Your task to perform on an android device: uninstall "NewsBreak: Local News & Alerts" Image 0: 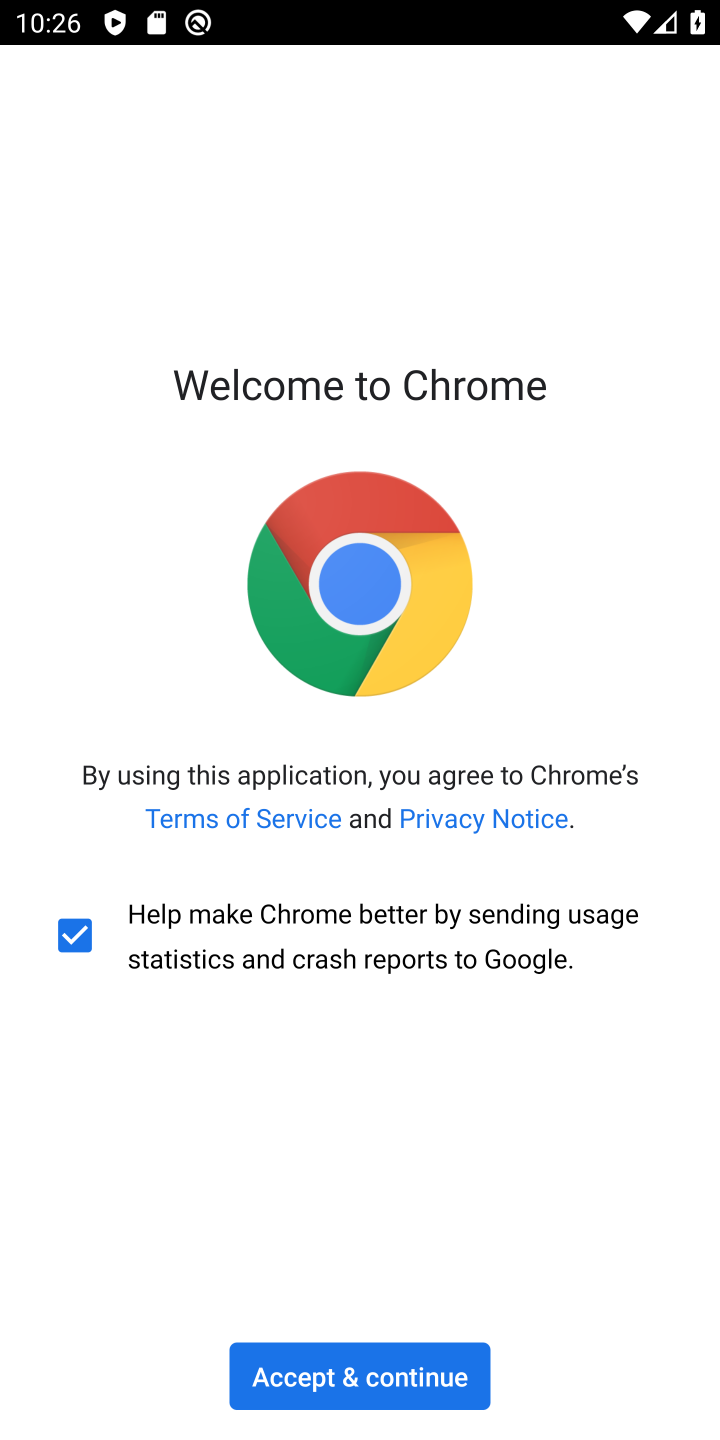
Step 0: press home button
Your task to perform on an android device: uninstall "NewsBreak: Local News & Alerts" Image 1: 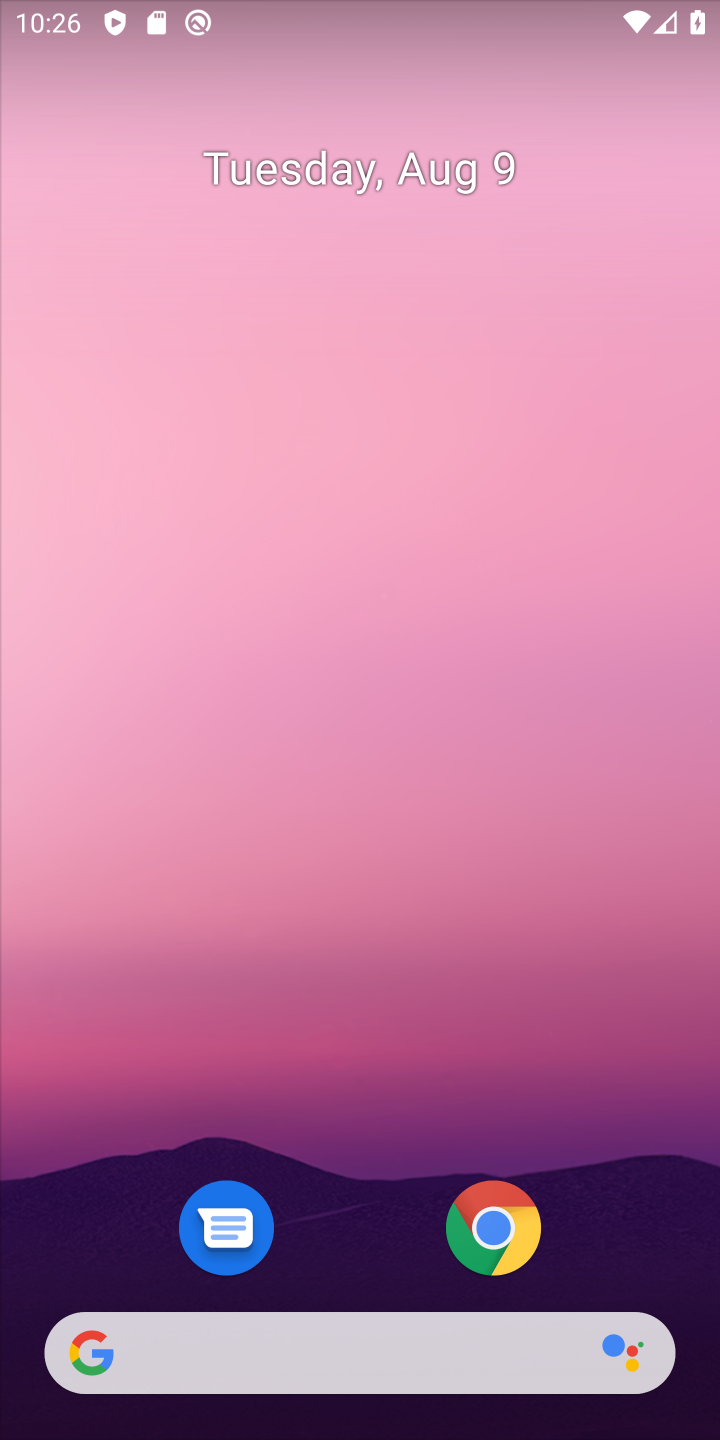
Step 1: drag from (385, 618) to (367, 203)
Your task to perform on an android device: uninstall "NewsBreak: Local News & Alerts" Image 2: 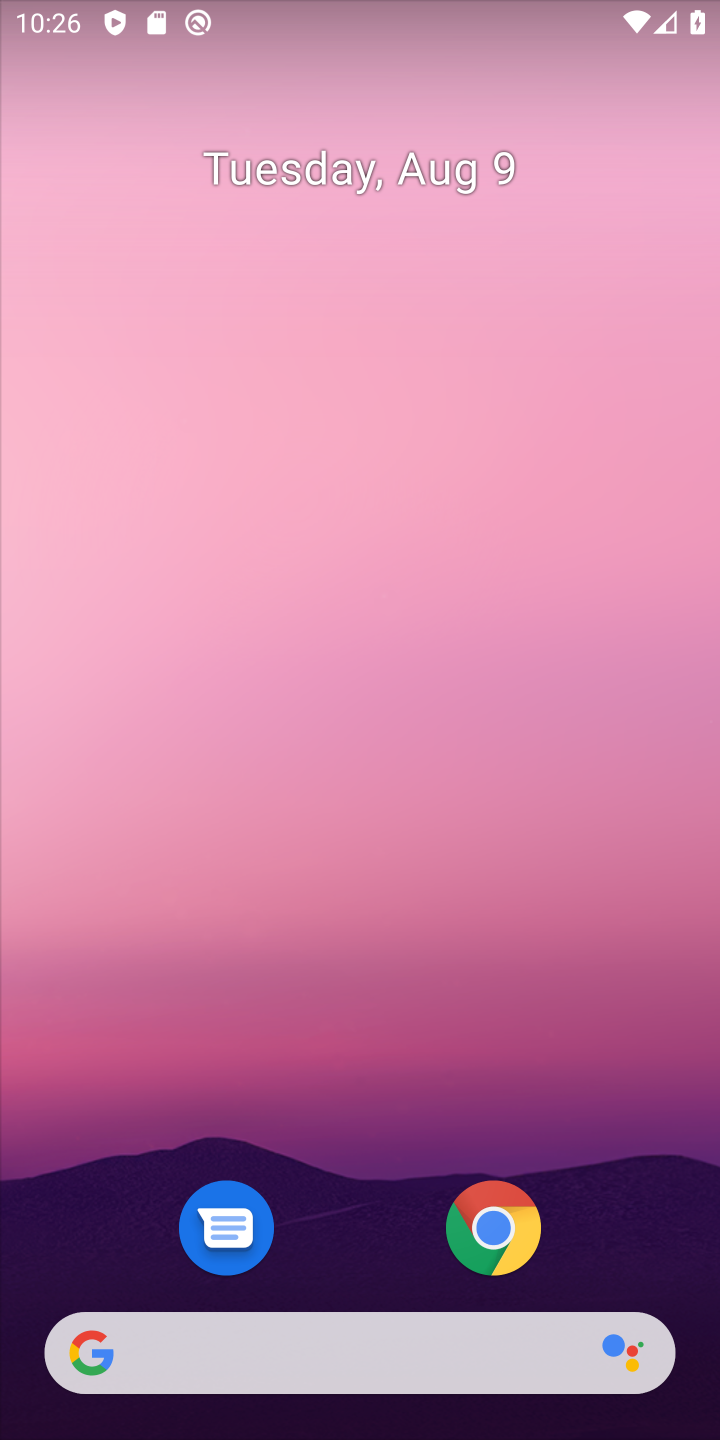
Step 2: drag from (286, 1019) to (236, 157)
Your task to perform on an android device: uninstall "NewsBreak: Local News & Alerts" Image 3: 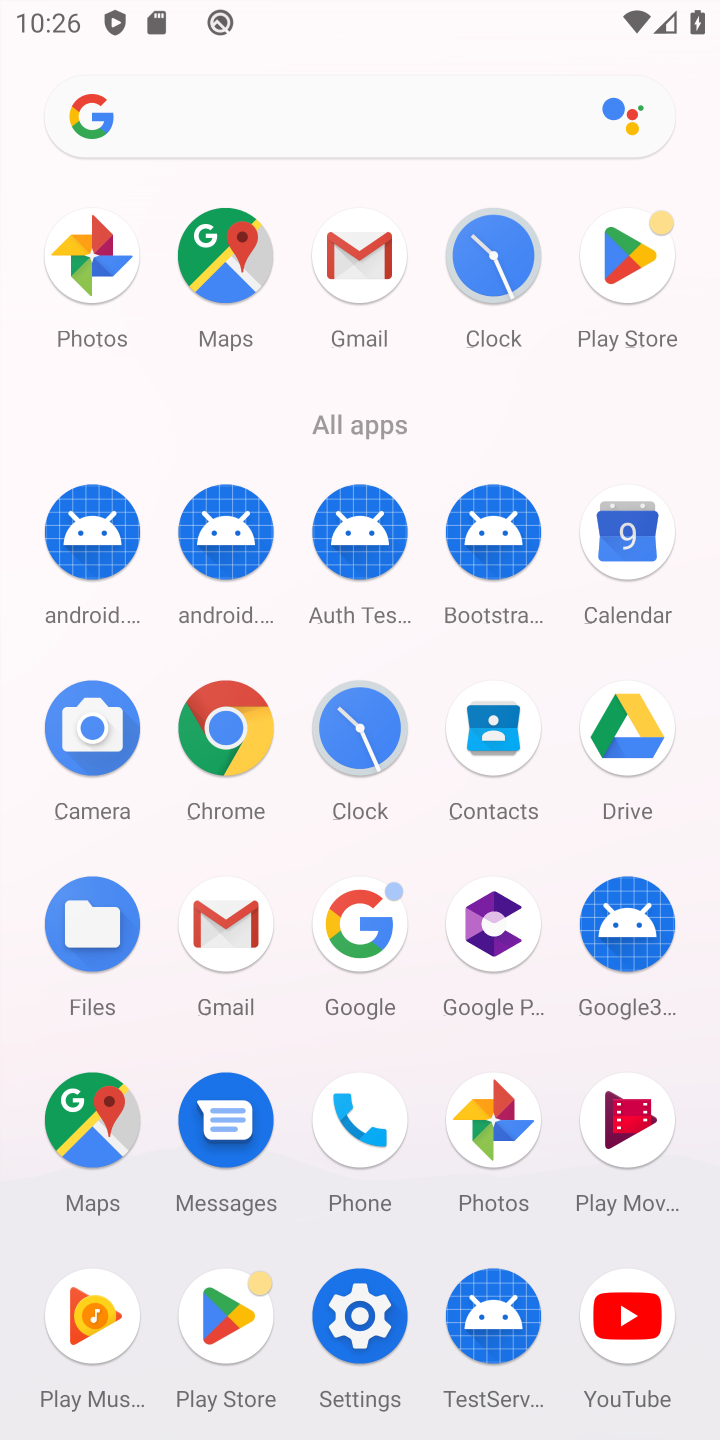
Step 3: click (627, 257)
Your task to perform on an android device: uninstall "NewsBreak: Local News & Alerts" Image 4: 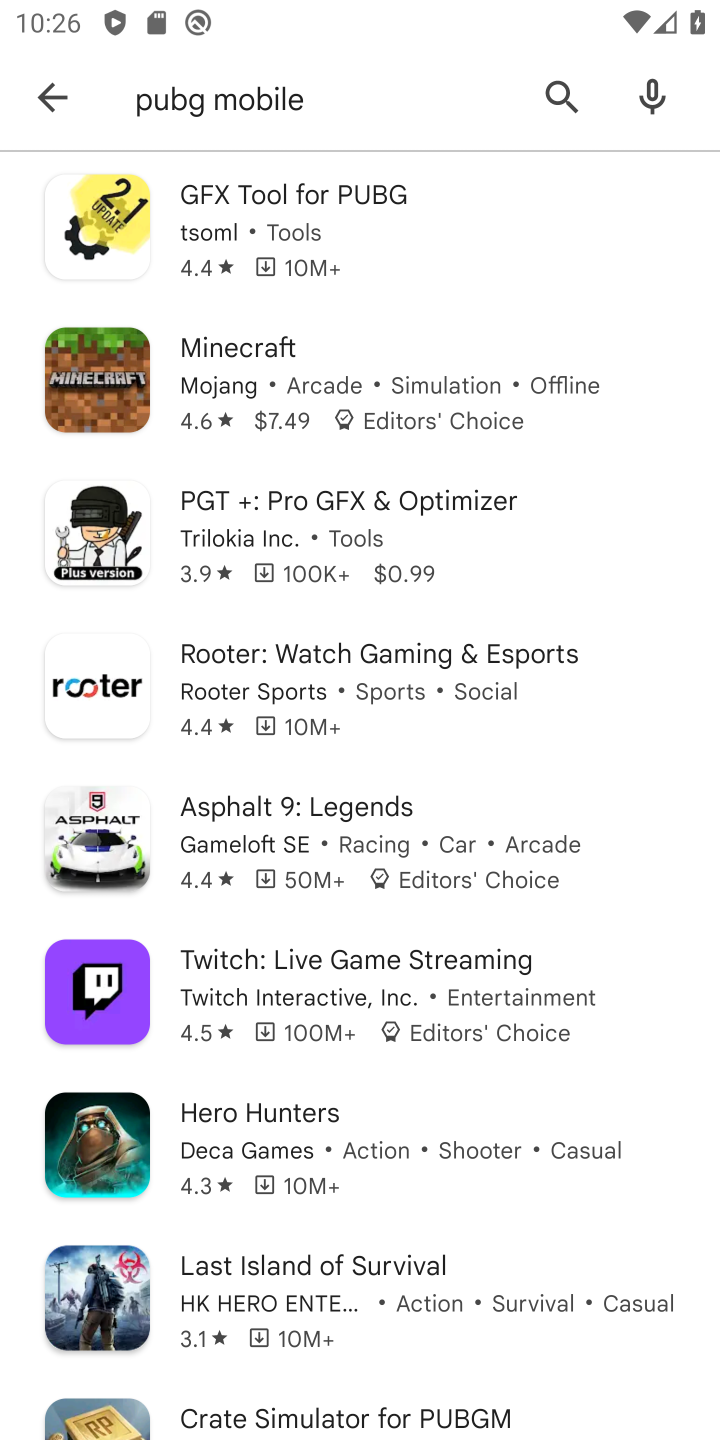
Step 4: click (554, 100)
Your task to perform on an android device: uninstall "NewsBreak: Local News & Alerts" Image 5: 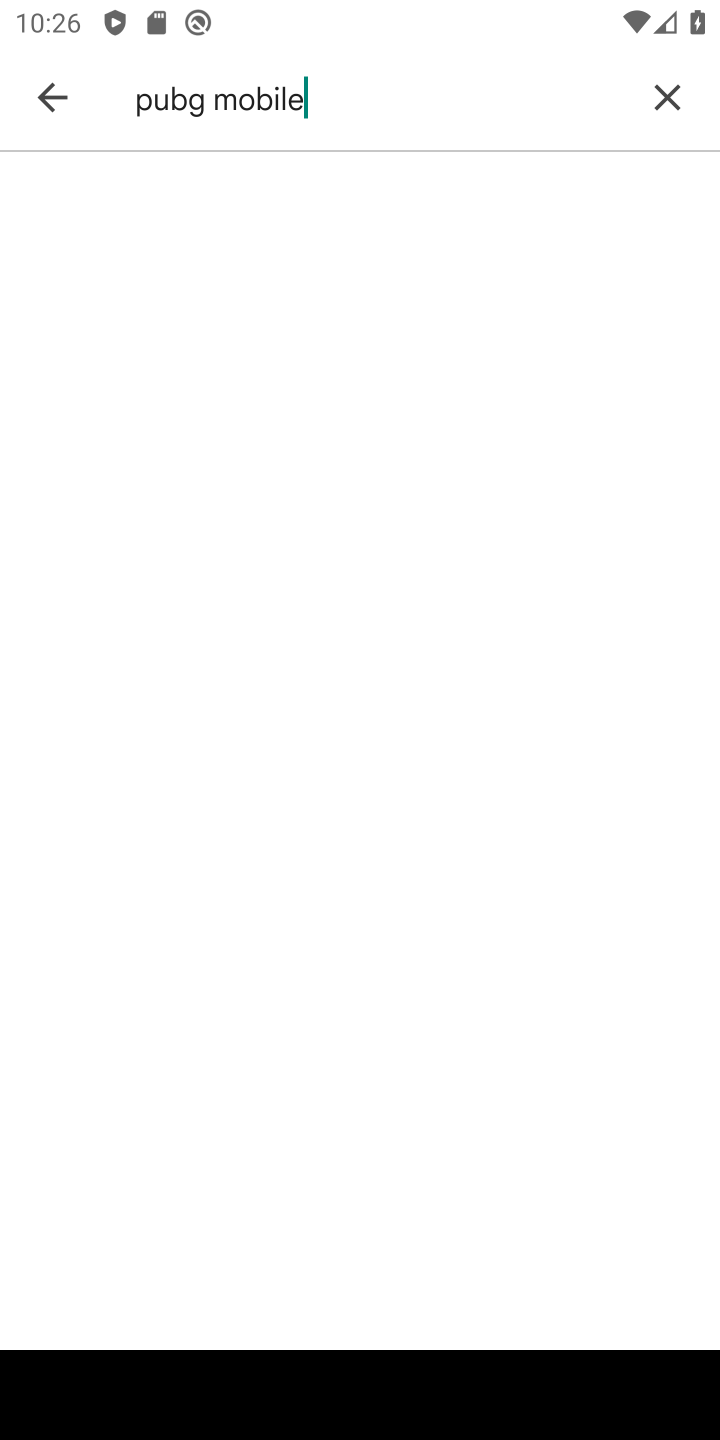
Step 5: click (670, 95)
Your task to perform on an android device: uninstall "NewsBreak: Local News & Alerts" Image 6: 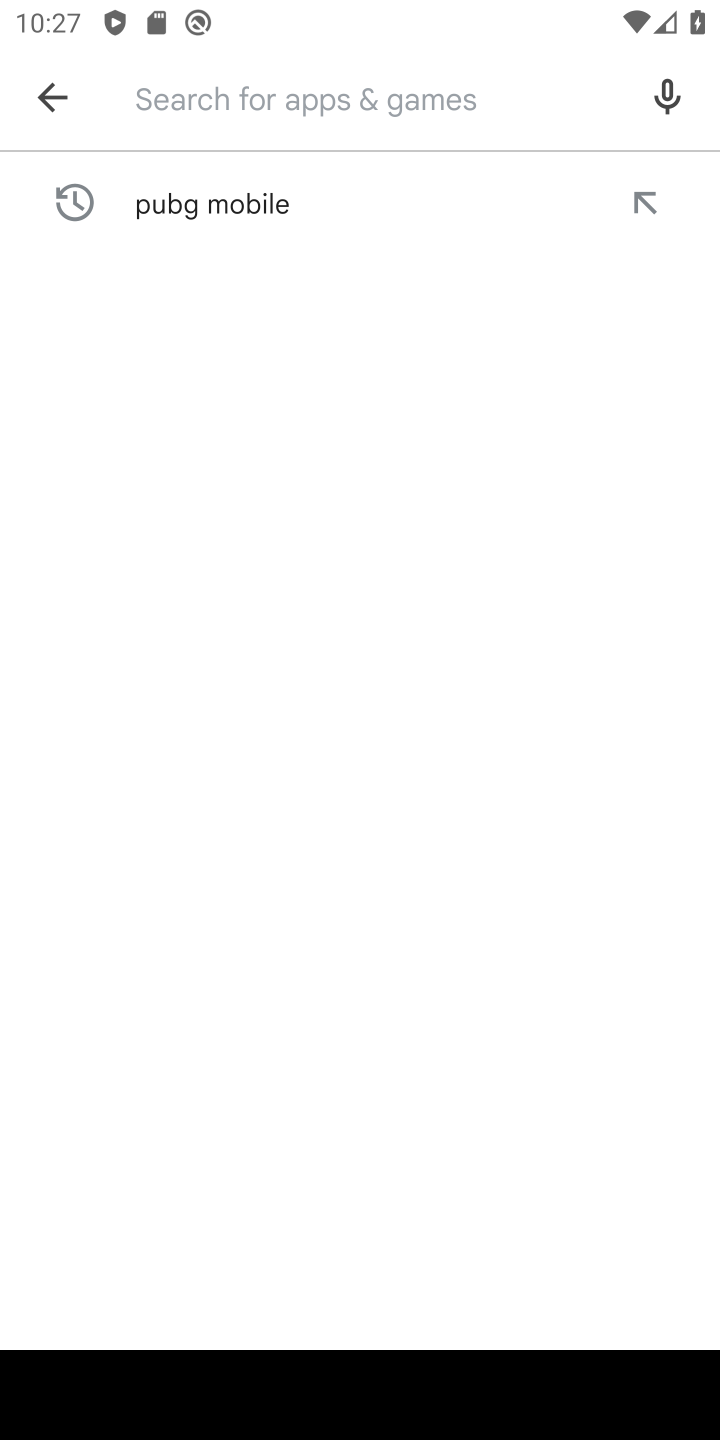
Step 6: type "NewsBreak: Local News & Alerts"
Your task to perform on an android device: uninstall "NewsBreak: Local News & Alerts" Image 7: 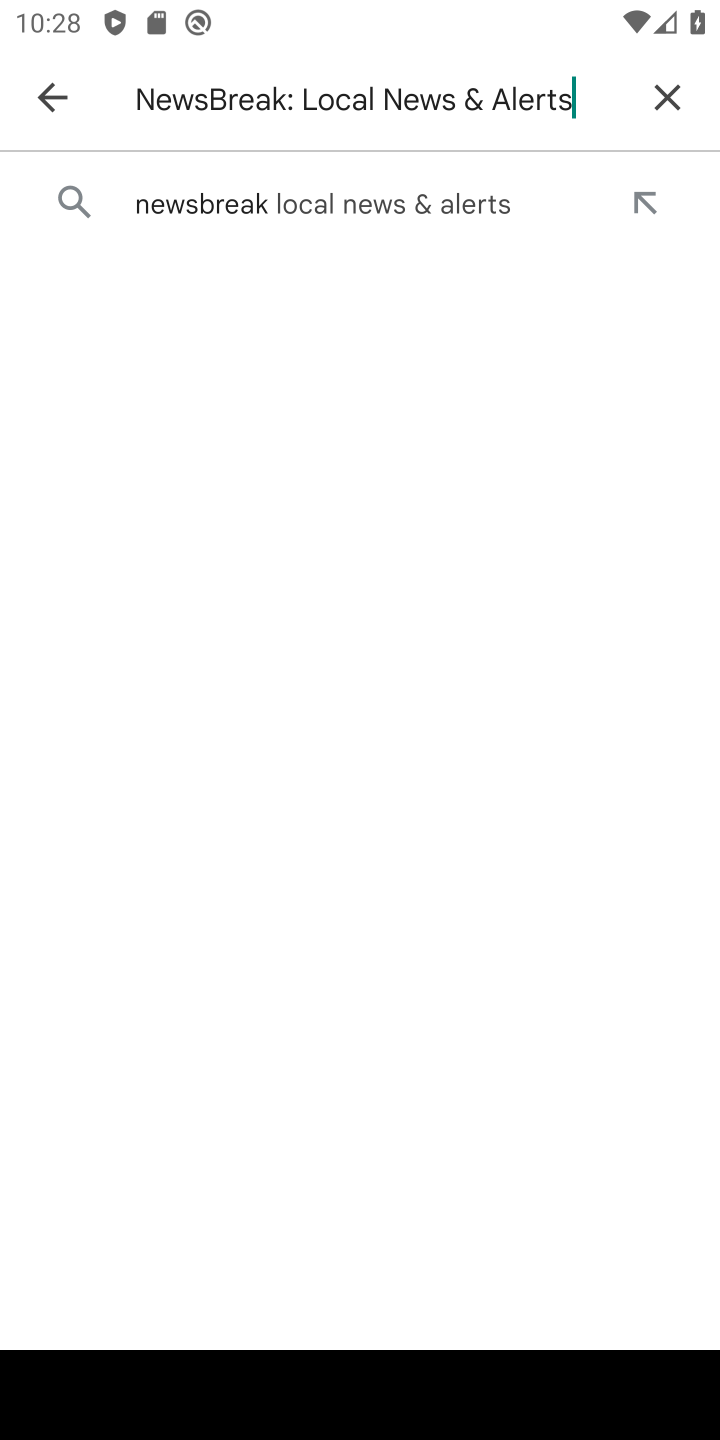
Step 7: click (228, 194)
Your task to perform on an android device: uninstall "NewsBreak: Local News & Alerts" Image 8: 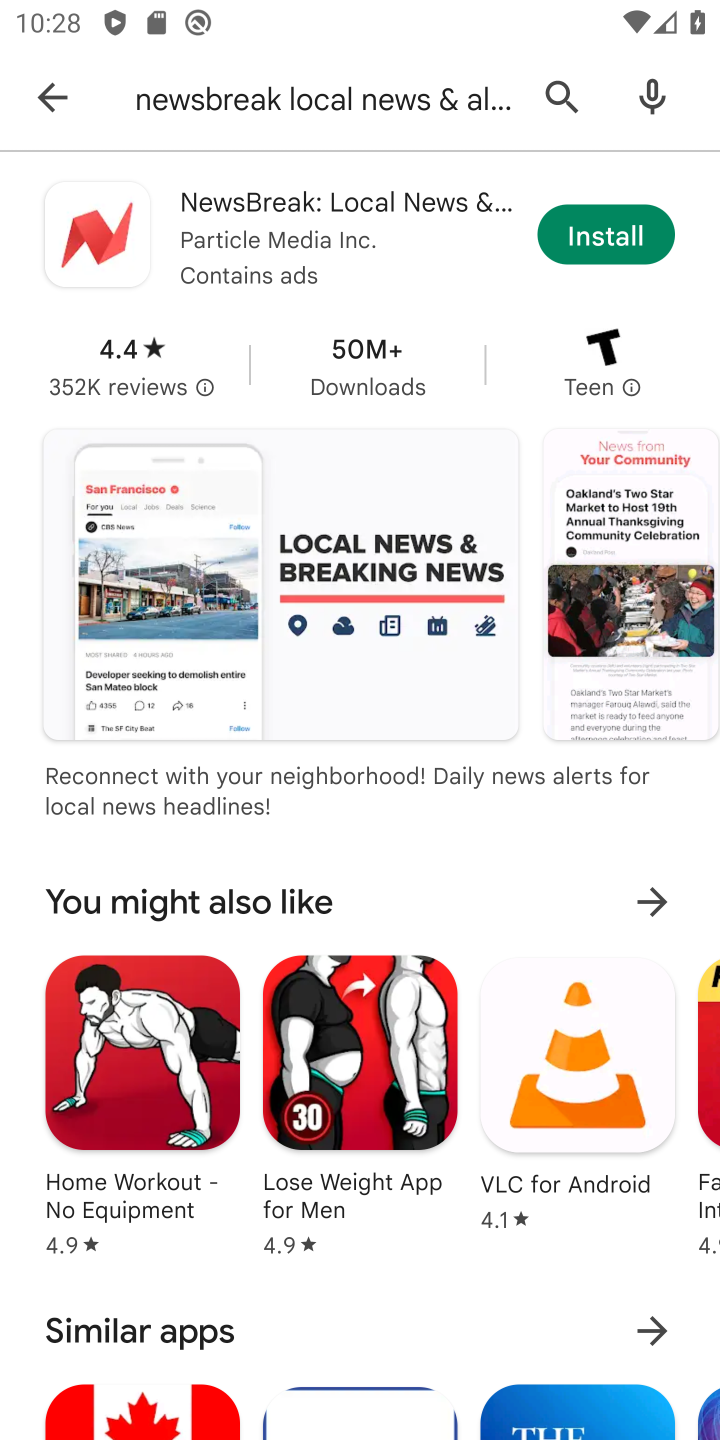
Step 8: click (320, 247)
Your task to perform on an android device: uninstall "NewsBreak: Local News & Alerts" Image 9: 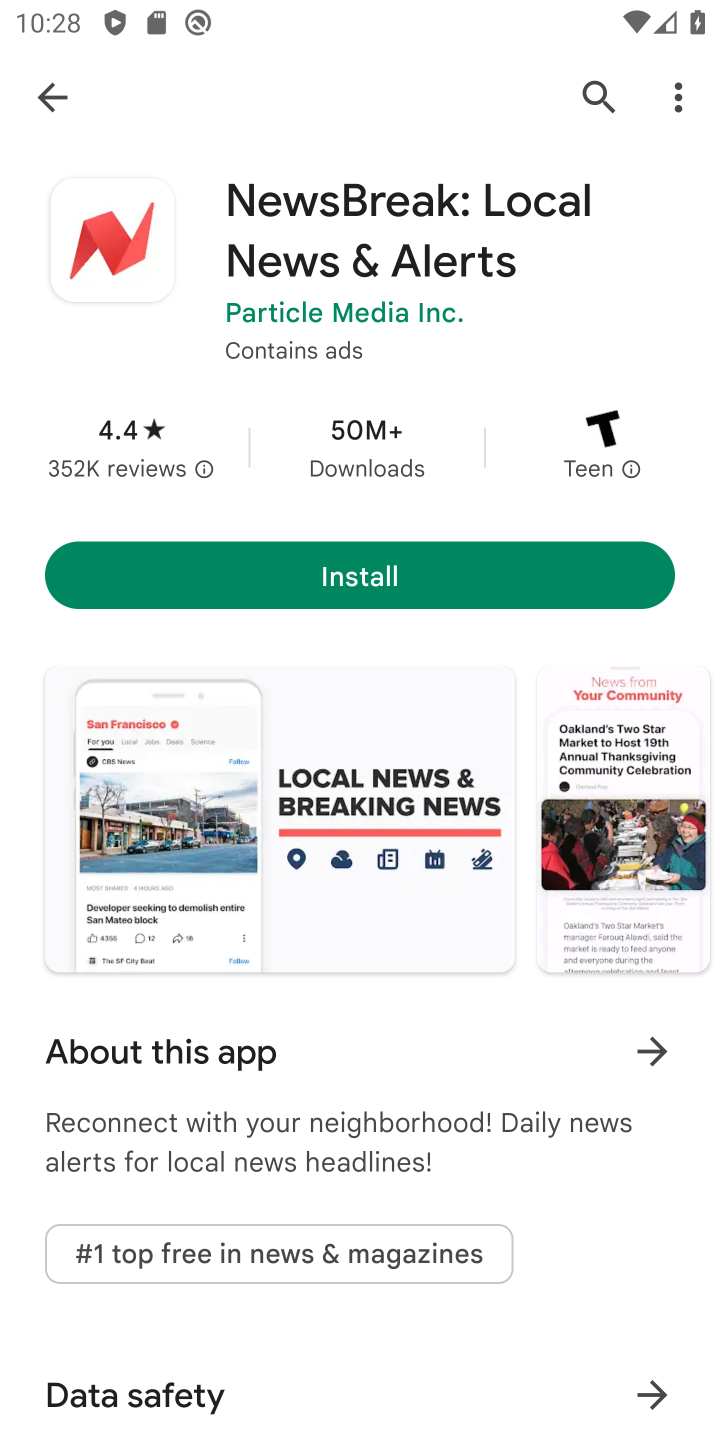
Step 9: task complete